Your task to perform on an android device: delete a single message in the gmail app Image 0: 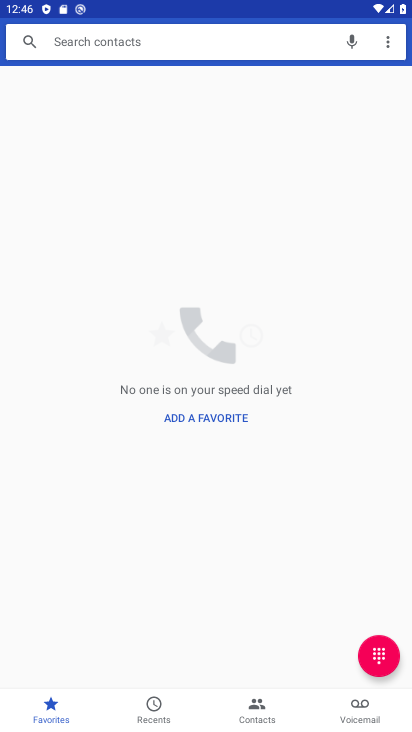
Step 0: press home button
Your task to perform on an android device: delete a single message in the gmail app Image 1: 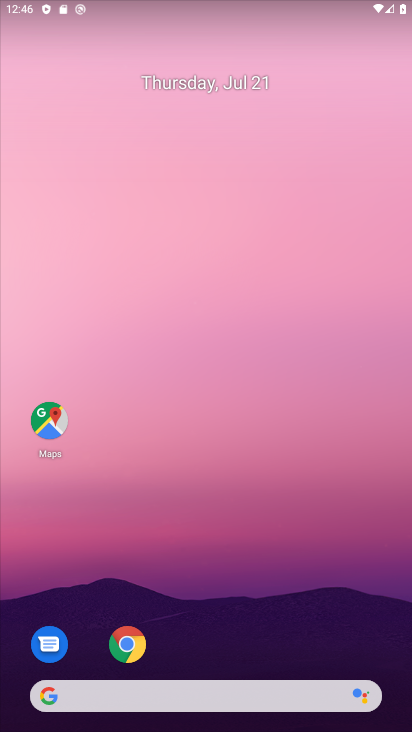
Step 1: drag from (200, 673) to (151, 99)
Your task to perform on an android device: delete a single message in the gmail app Image 2: 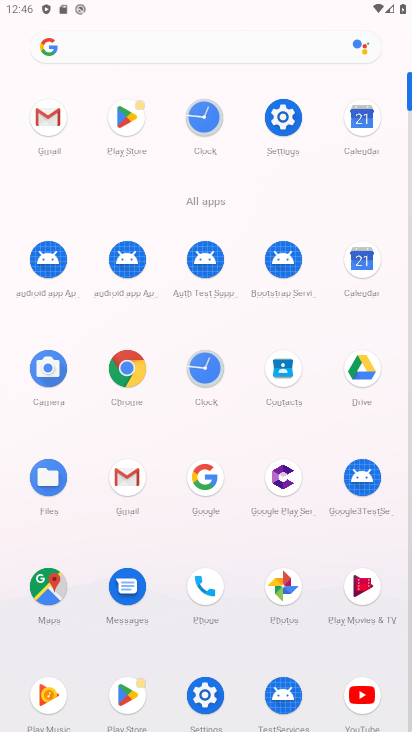
Step 2: click (142, 476)
Your task to perform on an android device: delete a single message in the gmail app Image 3: 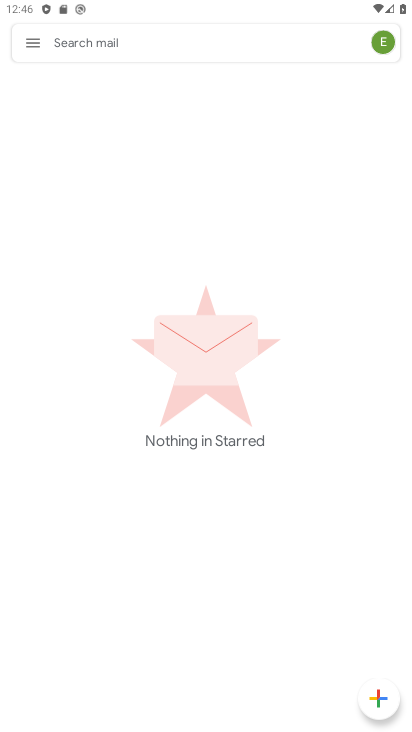
Step 3: click (35, 43)
Your task to perform on an android device: delete a single message in the gmail app Image 4: 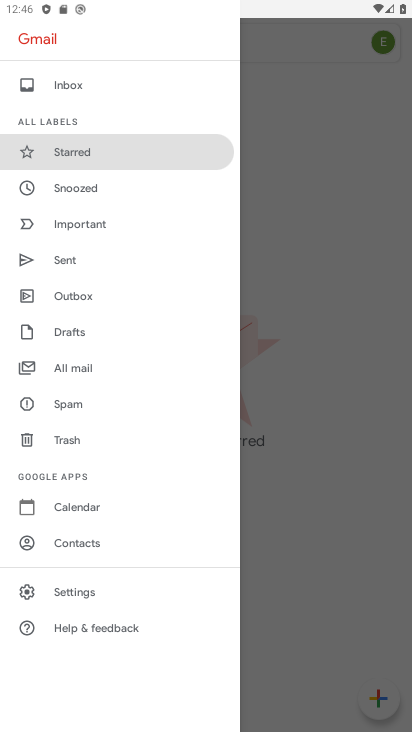
Step 4: click (61, 92)
Your task to perform on an android device: delete a single message in the gmail app Image 5: 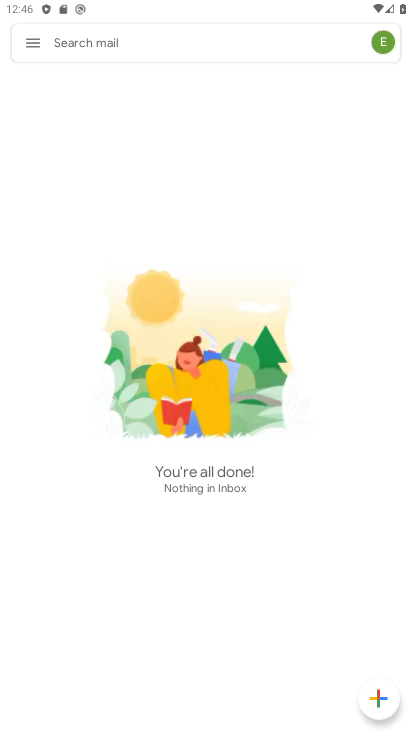
Step 5: task complete